Your task to perform on an android device: manage bookmarks in the chrome app Image 0: 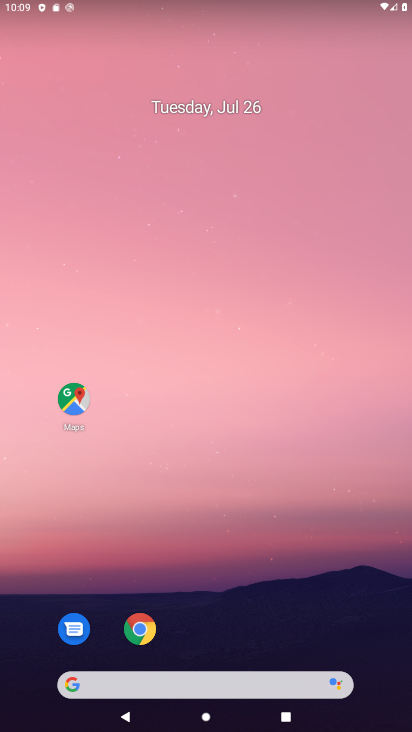
Step 0: drag from (299, 562) to (141, 37)
Your task to perform on an android device: manage bookmarks in the chrome app Image 1: 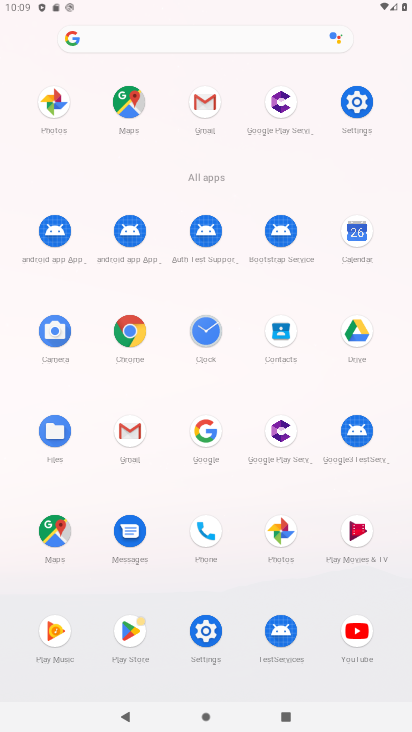
Step 1: click (140, 312)
Your task to perform on an android device: manage bookmarks in the chrome app Image 2: 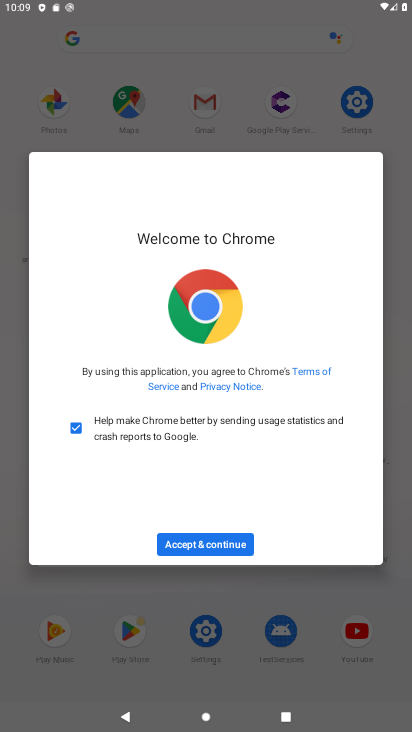
Step 2: click (220, 547)
Your task to perform on an android device: manage bookmarks in the chrome app Image 3: 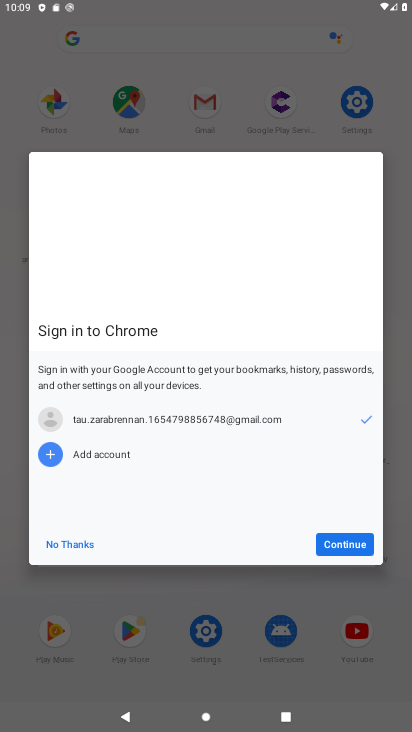
Step 3: click (343, 543)
Your task to perform on an android device: manage bookmarks in the chrome app Image 4: 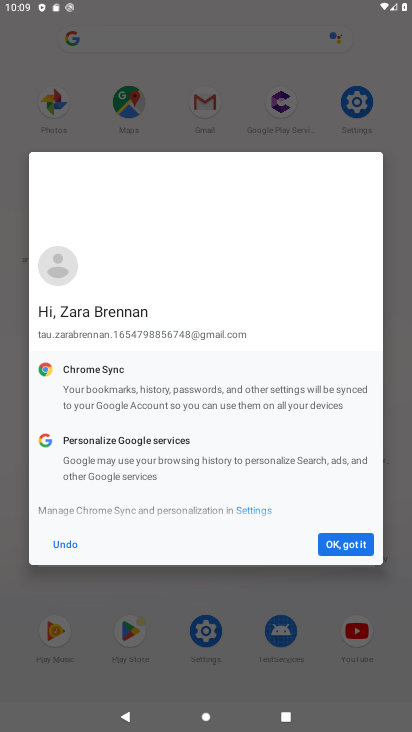
Step 4: click (343, 543)
Your task to perform on an android device: manage bookmarks in the chrome app Image 5: 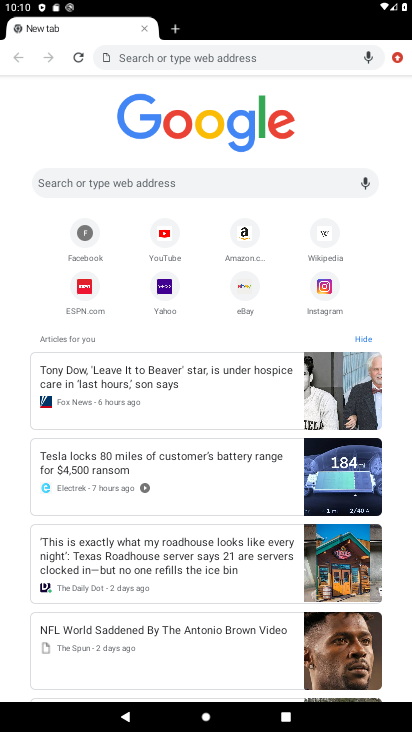
Step 5: task complete